Your task to perform on an android device: install app "Indeed Job Search" Image 0: 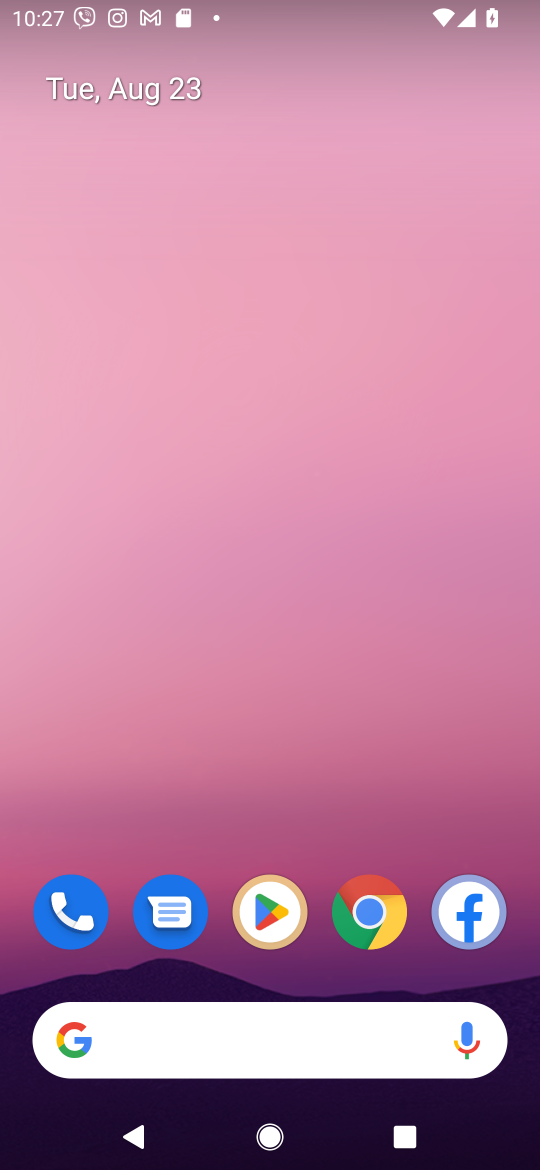
Step 0: click (266, 925)
Your task to perform on an android device: install app "Indeed Job Search" Image 1: 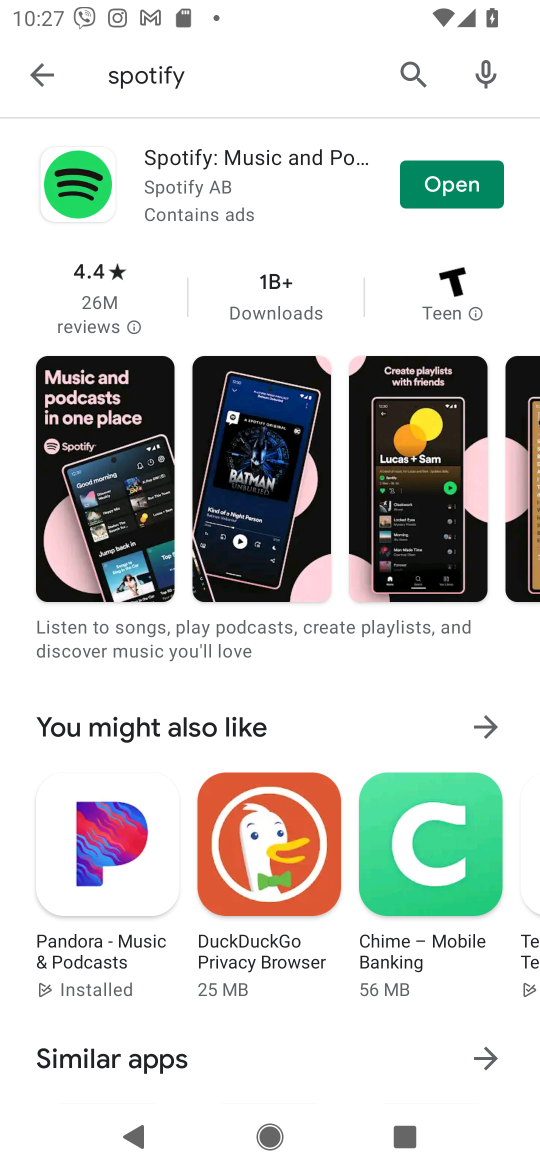
Step 1: click (395, 77)
Your task to perform on an android device: install app "Indeed Job Search" Image 2: 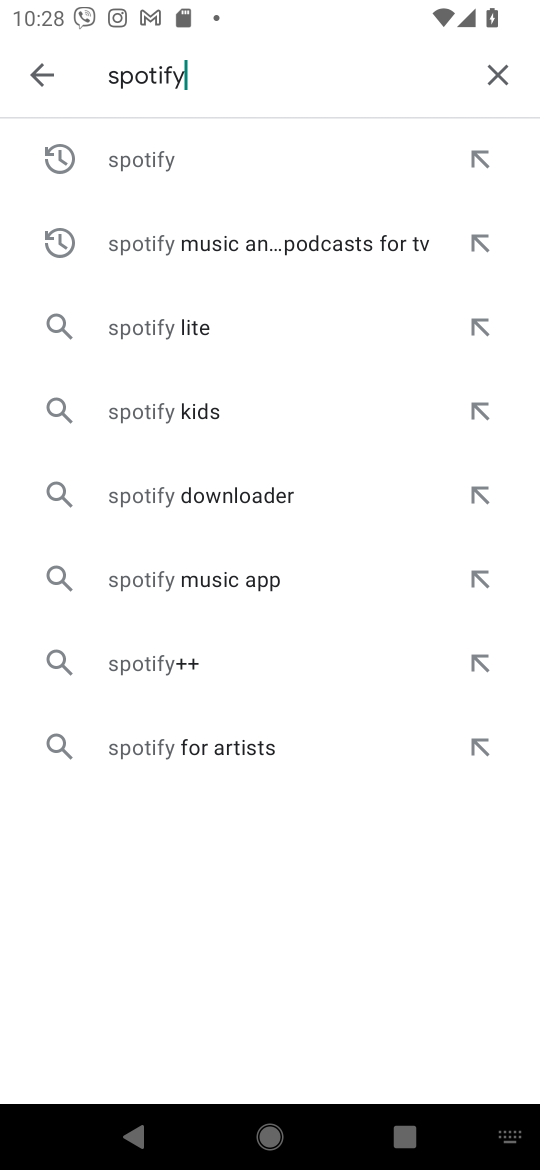
Step 2: click (490, 75)
Your task to perform on an android device: install app "Indeed Job Search" Image 3: 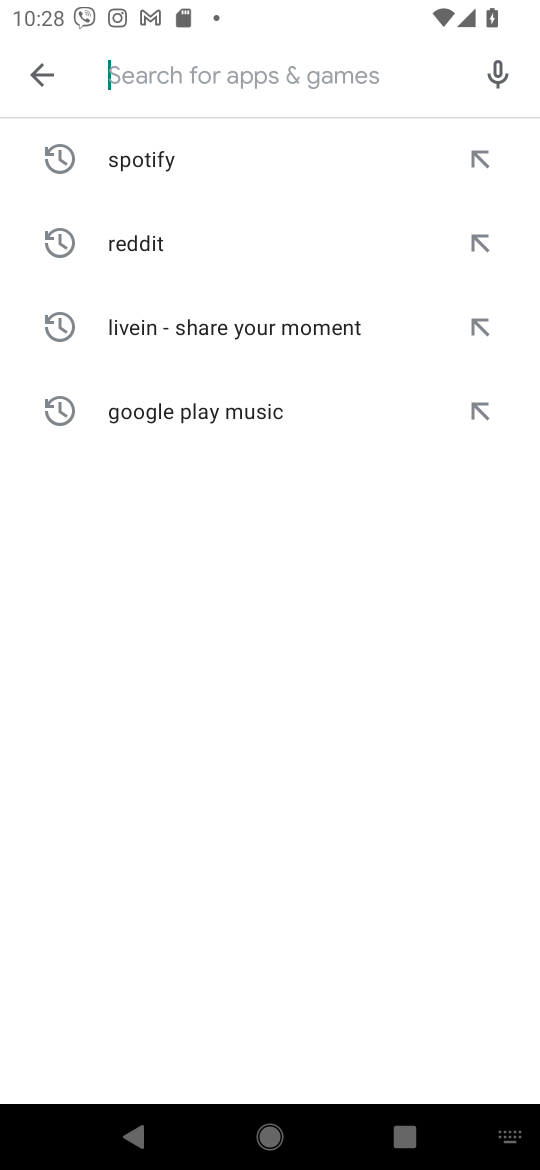
Step 3: type "Indeed job search"
Your task to perform on an android device: install app "Indeed Job Search" Image 4: 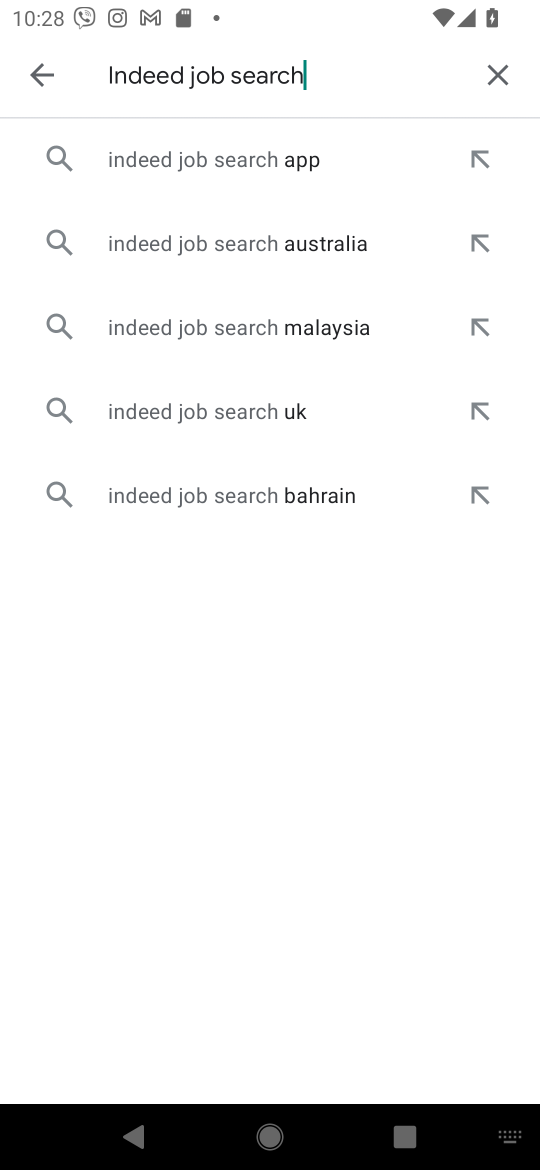
Step 4: click (159, 157)
Your task to perform on an android device: install app "Indeed Job Search" Image 5: 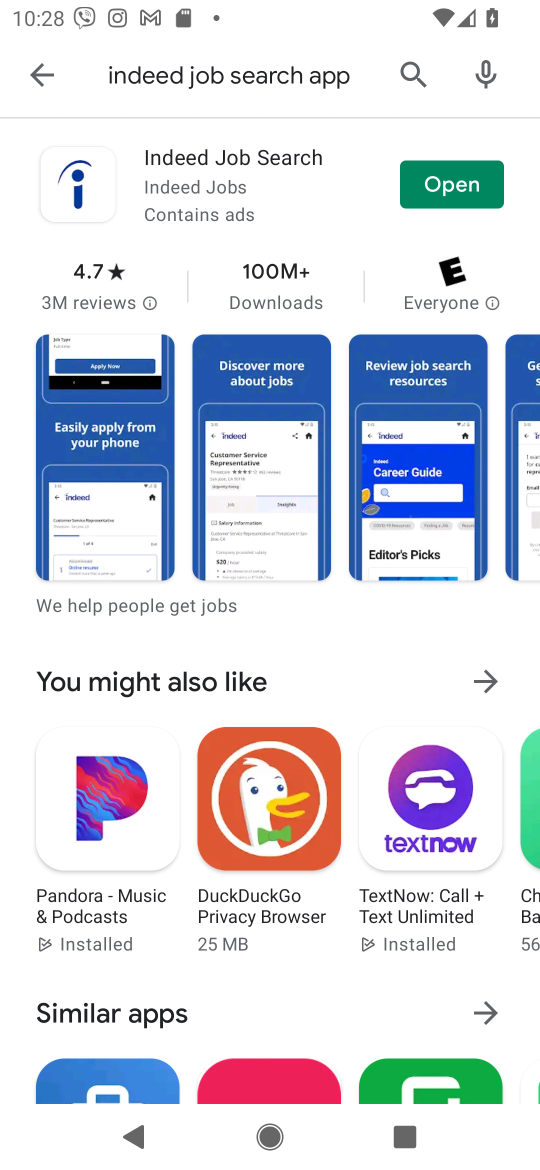
Step 5: task complete